Your task to perform on an android device: Check the weather Image 0: 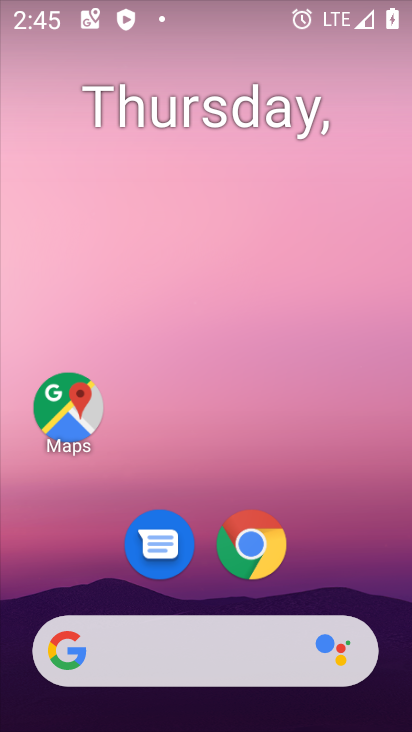
Step 0: drag from (329, 592) to (371, 198)
Your task to perform on an android device: Check the weather Image 1: 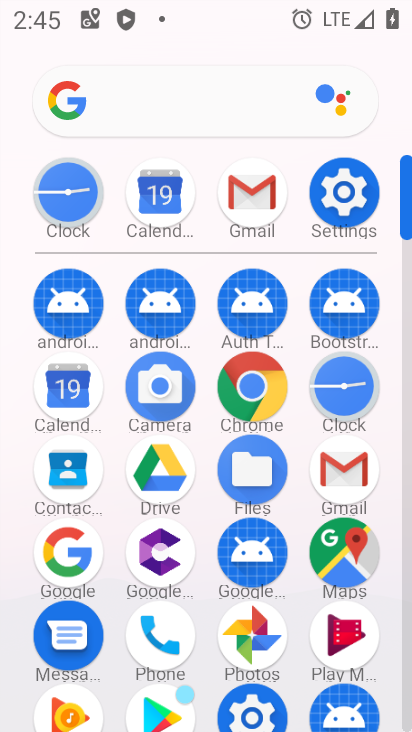
Step 1: click (74, 561)
Your task to perform on an android device: Check the weather Image 2: 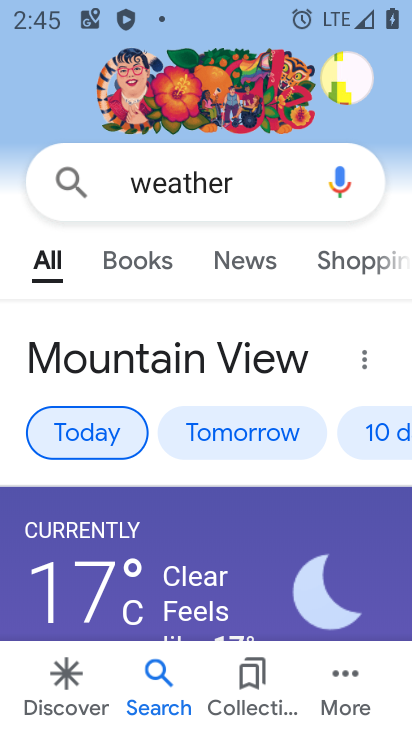
Step 2: click (136, 581)
Your task to perform on an android device: Check the weather Image 3: 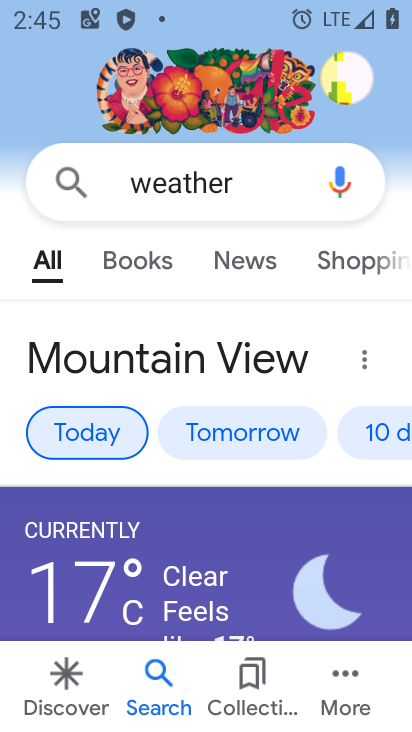
Step 3: click (136, 581)
Your task to perform on an android device: Check the weather Image 4: 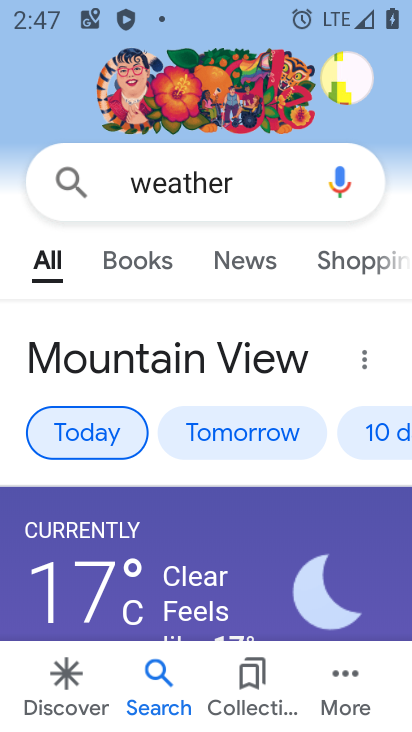
Step 4: task complete